Your task to perform on an android device: Toggle the flashlight Image 0: 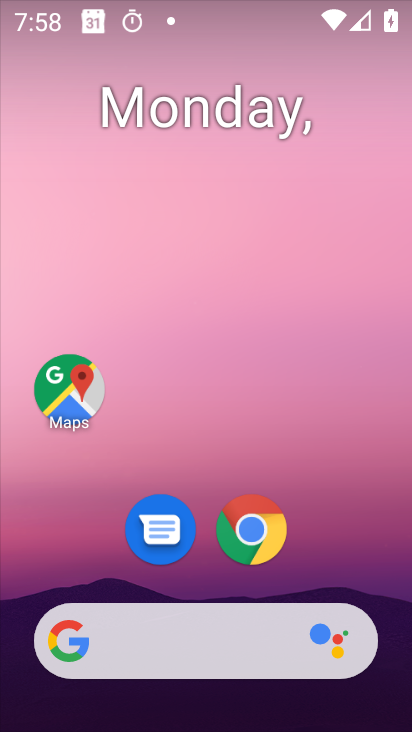
Step 0: drag from (60, 602) to (276, 248)
Your task to perform on an android device: Toggle the flashlight Image 1: 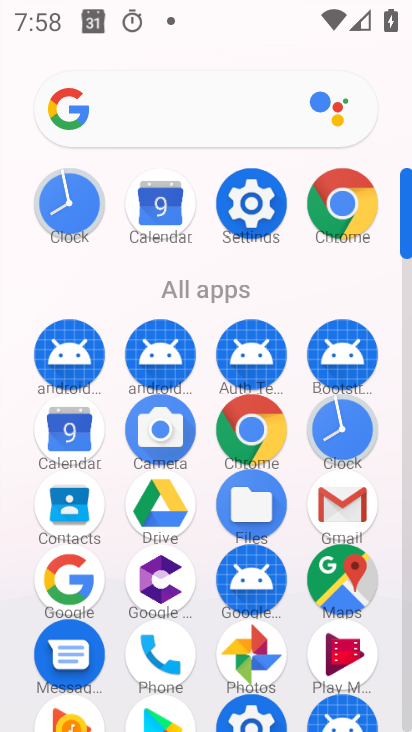
Step 1: click (242, 203)
Your task to perform on an android device: Toggle the flashlight Image 2: 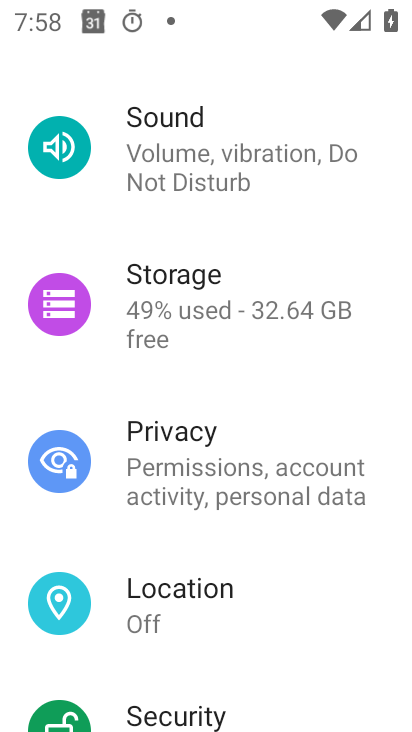
Step 2: click (159, 449)
Your task to perform on an android device: Toggle the flashlight Image 3: 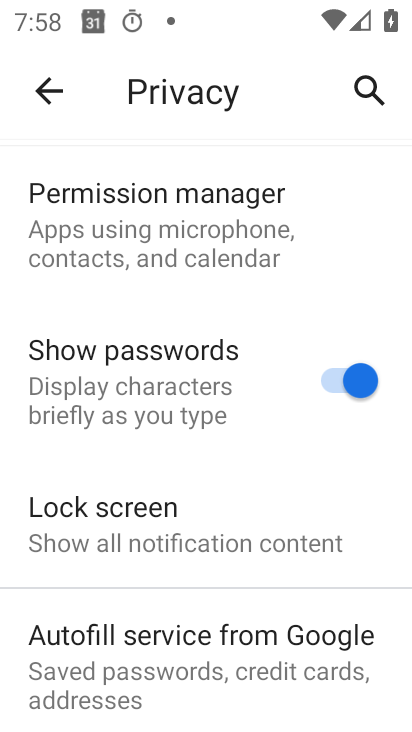
Step 3: task complete